Your task to perform on an android device: Go to Wikipedia Image 0: 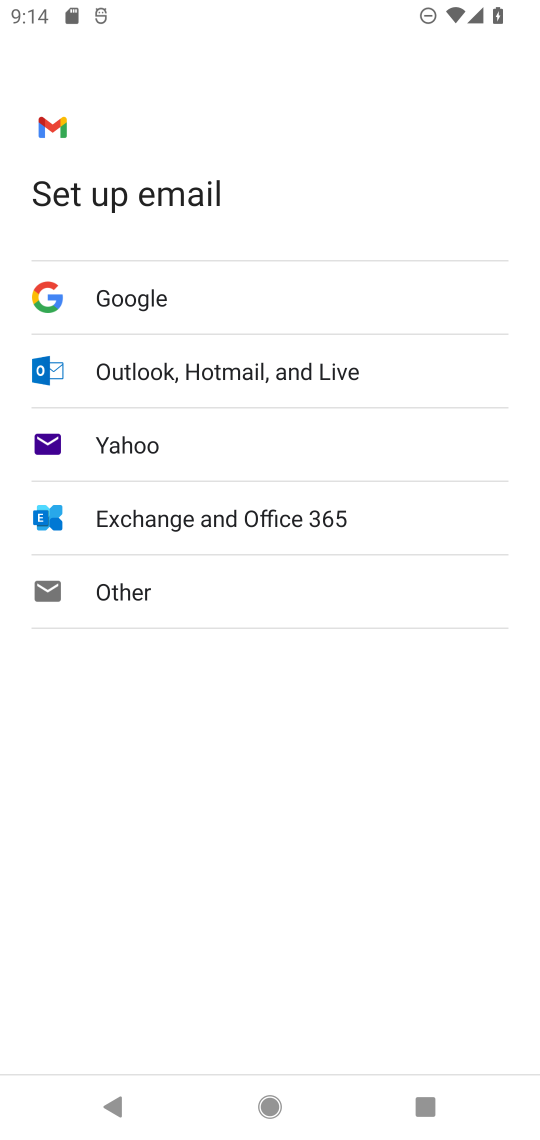
Step 0: press home button
Your task to perform on an android device: Go to Wikipedia Image 1: 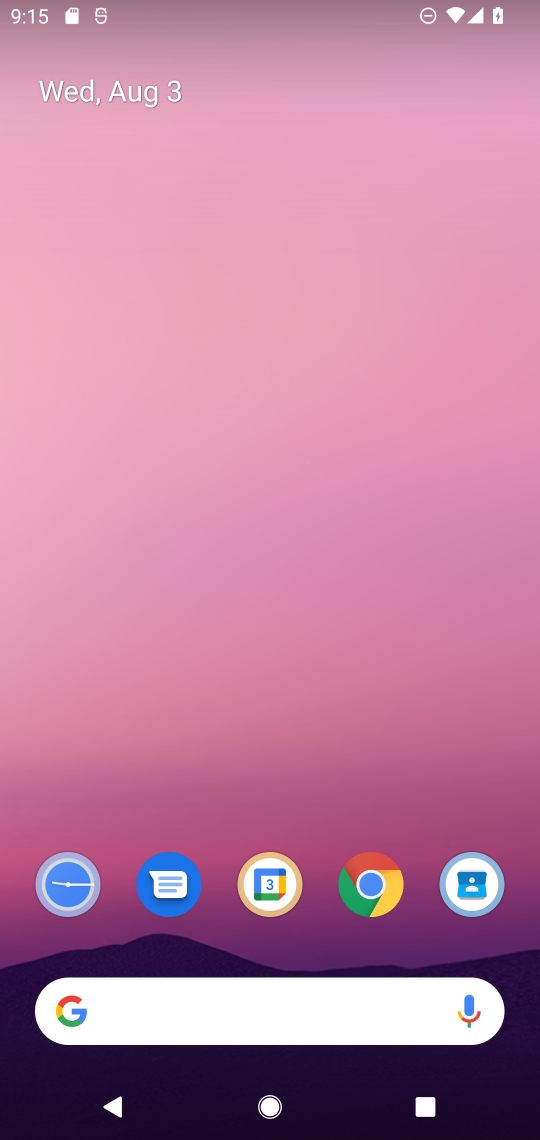
Step 1: click (222, 991)
Your task to perform on an android device: Go to Wikipedia Image 2: 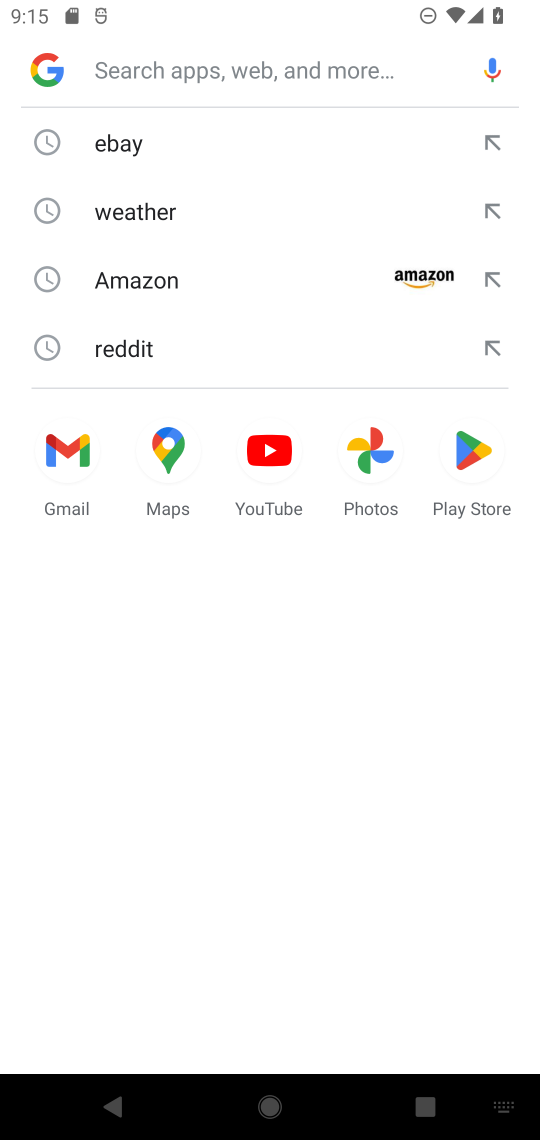
Step 2: type "Wikipedia"
Your task to perform on an android device: Go to Wikipedia Image 3: 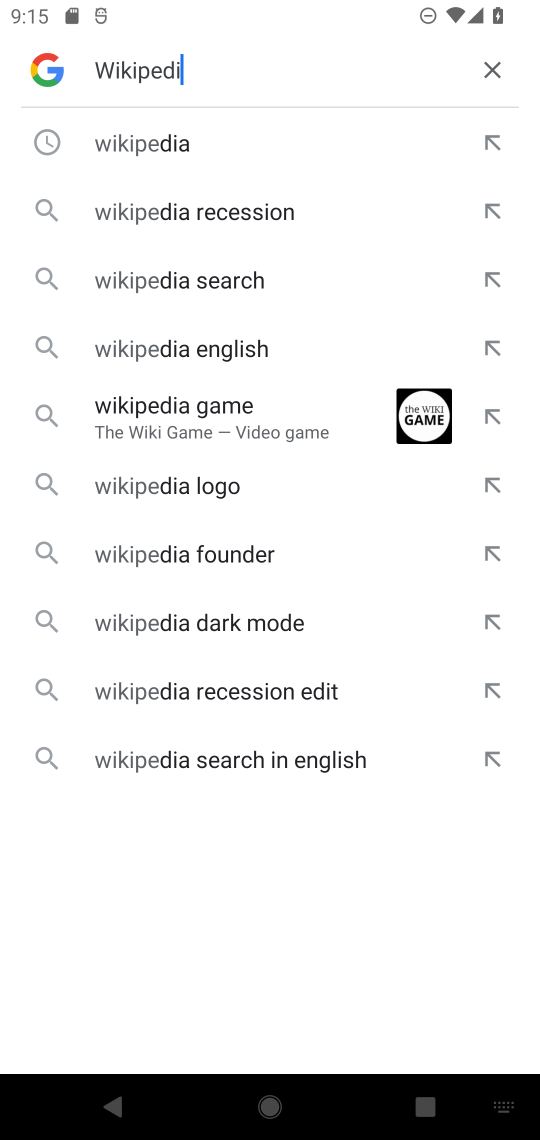
Step 3: type ""
Your task to perform on an android device: Go to Wikipedia Image 4: 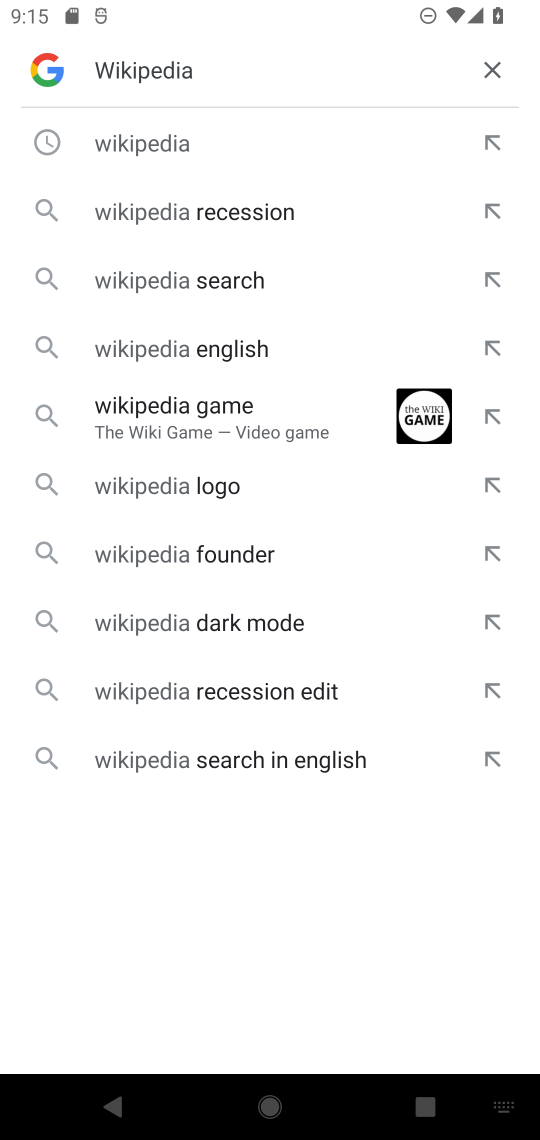
Step 4: click (98, 124)
Your task to perform on an android device: Go to Wikipedia Image 5: 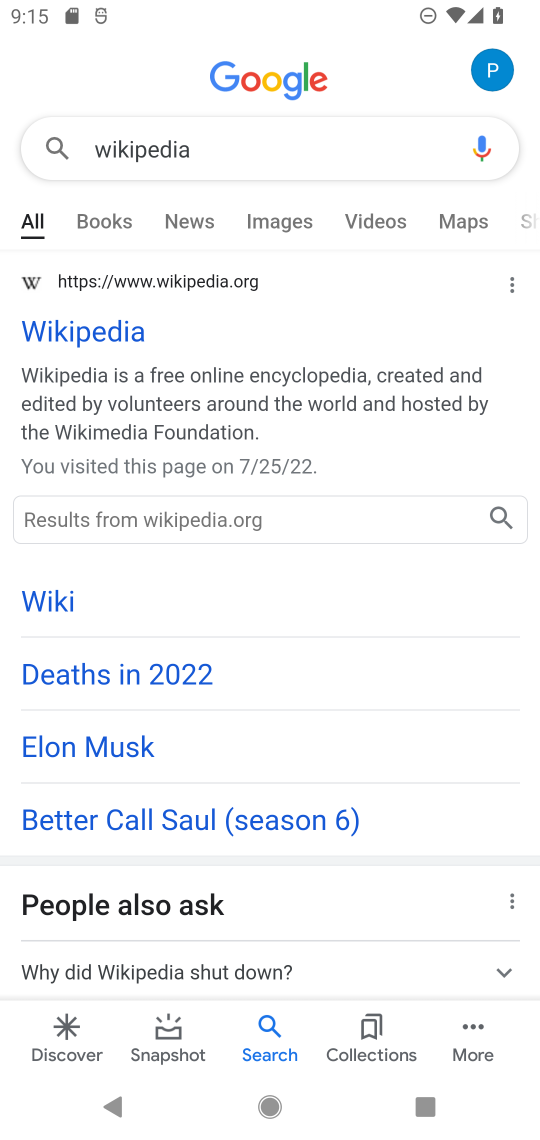
Step 5: task complete